Your task to perform on an android device: What's on my calendar tomorrow? Image 0: 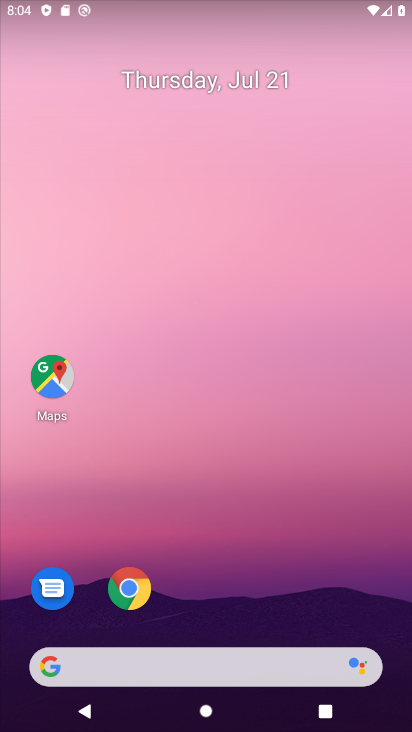
Step 0: drag from (262, 623) to (178, 278)
Your task to perform on an android device: What's on my calendar tomorrow? Image 1: 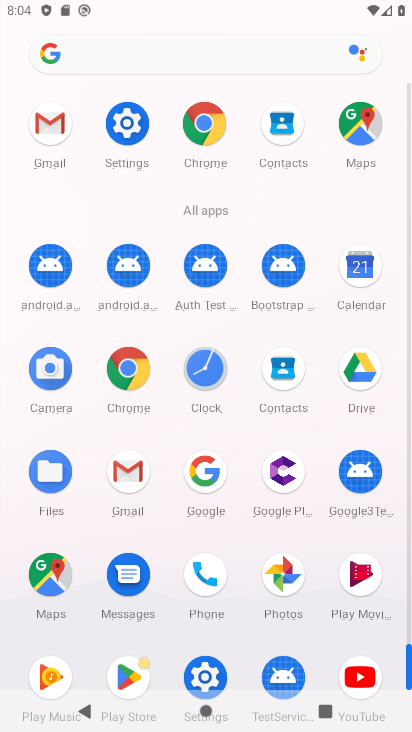
Step 1: click (356, 268)
Your task to perform on an android device: What's on my calendar tomorrow? Image 2: 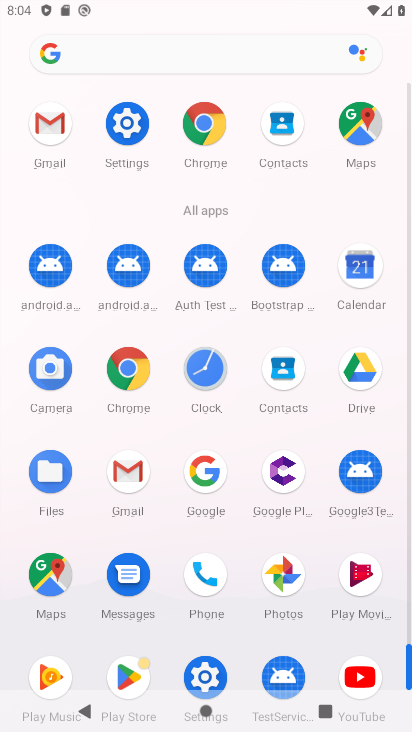
Step 2: click (359, 267)
Your task to perform on an android device: What's on my calendar tomorrow? Image 3: 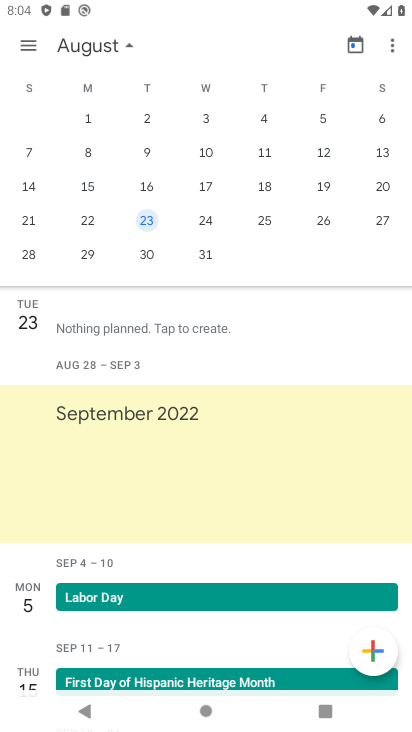
Step 3: drag from (86, 178) to (381, 199)
Your task to perform on an android device: What's on my calendar tomorrow? Image 4: 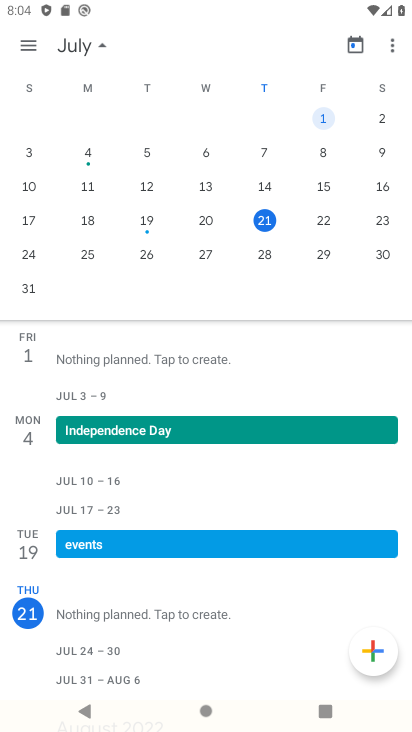
Step 4: drag from (351, 216) to (62, 194)
Your task to perform on an android device: What's on my calendar tomorrow? Image 5: 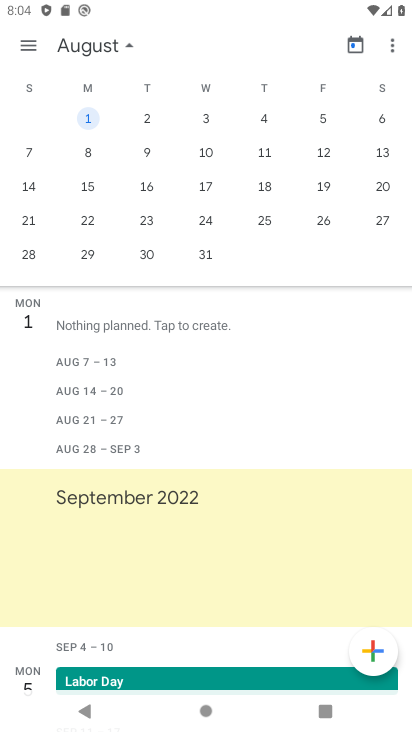
Step 5: drag from (50, 171) to (410, 208)
Your task to perform on an android device: What's on my calendar tomorrow? Image 6: 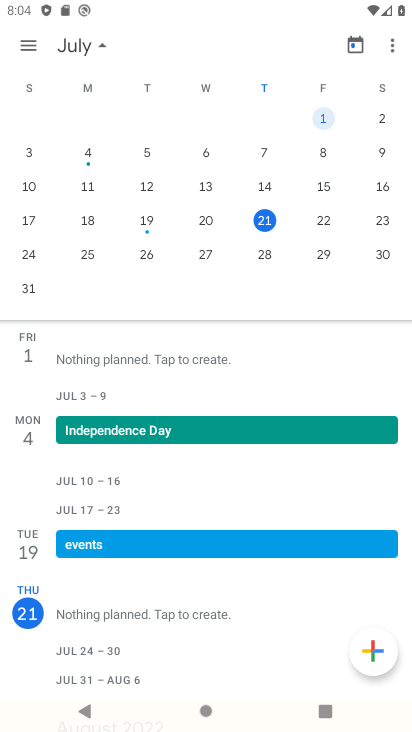
Step 6: click (375, 208)
Your task to perform on an android device: What's on my calendar tomorrow? Image 7: 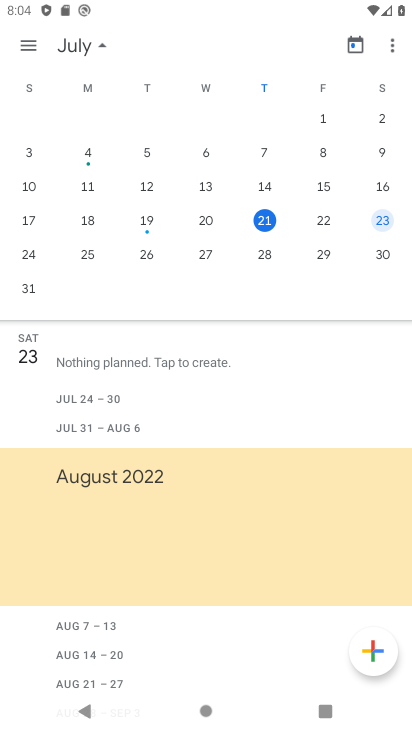
Step 7: click (376, 209)
Your task to perform on an android device: What's on my calendar tomorrow? Image 8: 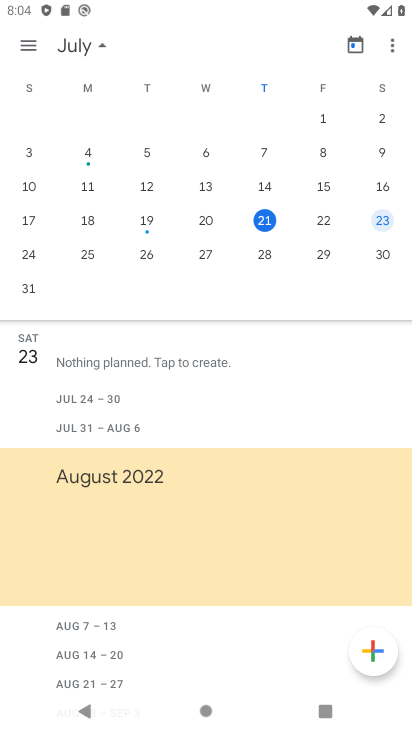
Step 8: click (376, 209)
Your task to perform on an android device: What's on my calendar tomorrow? Image 9: 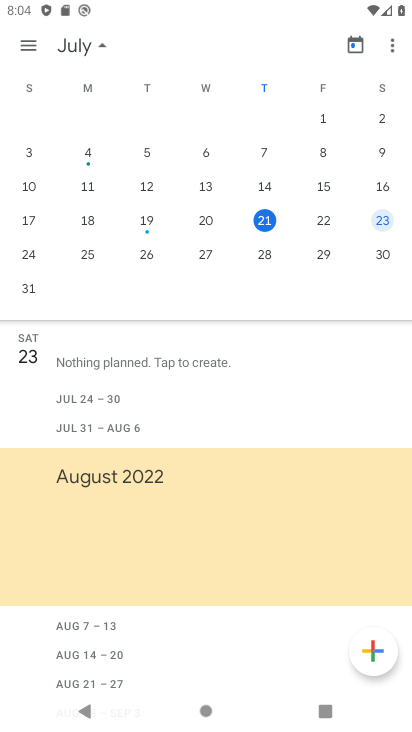
Step 9: click (378, 211)
Your task to perform on an android device: What's on my calendar tomorrow? Image 10: 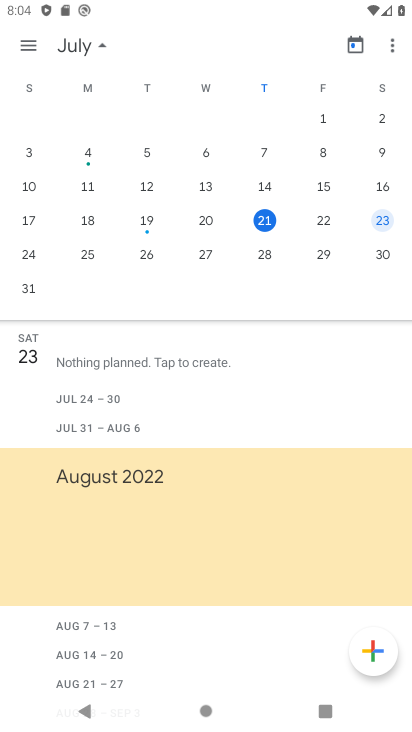
Step 10: task complete